Your task to perform on an android device: Open calendar and show me the fourth week of next month Image 0: 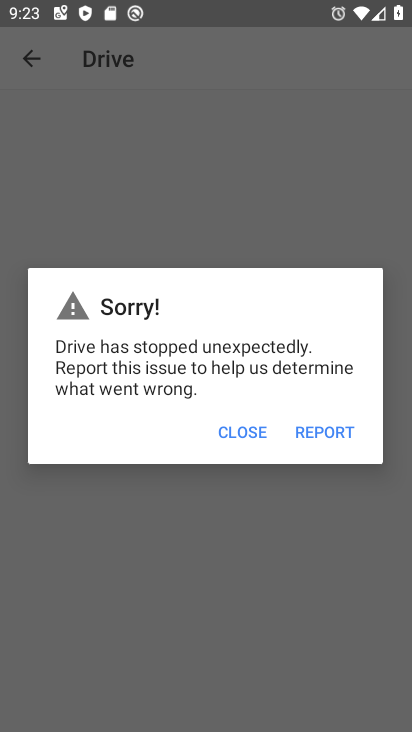
Step 0: press home button
Your task to perform on an android device: Open calendar and show me the fourth week of next month Image 1: 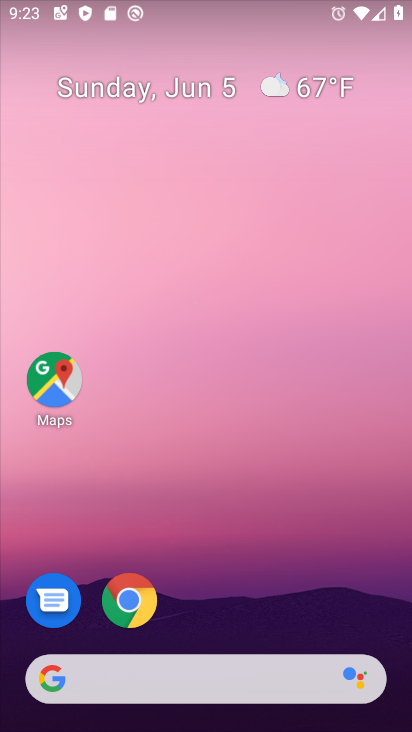
Step 1: drag from (402, 469) to (234, 14)
Your task to perform on an android device: Open calendar and show me the fourth week of next month Image 2: 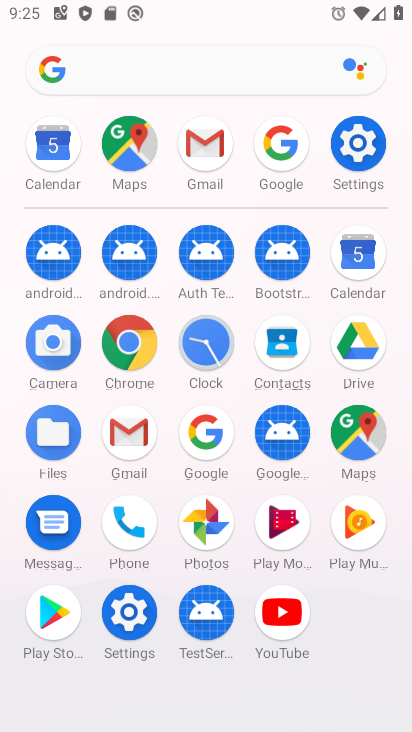
Step 2: click (342, 259)
Your task to perform on an android device: Open calendar and show me the fourth week of next month Image 3: 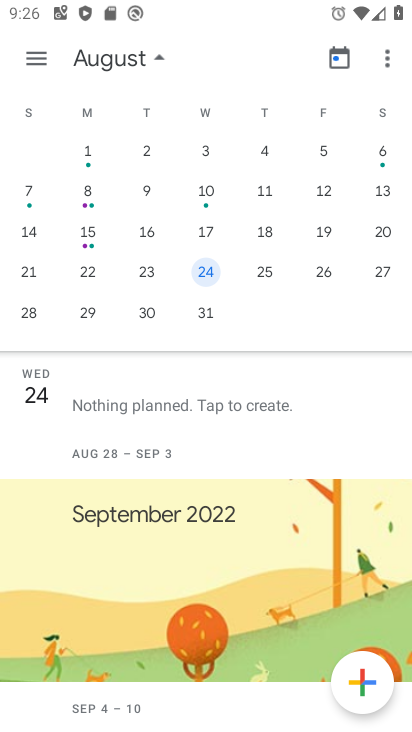
Step 3: drag from (359, 213) to (1, 279)
Your task to perform on an android device: Open calendar and show me the fourth week of next month Image 4: 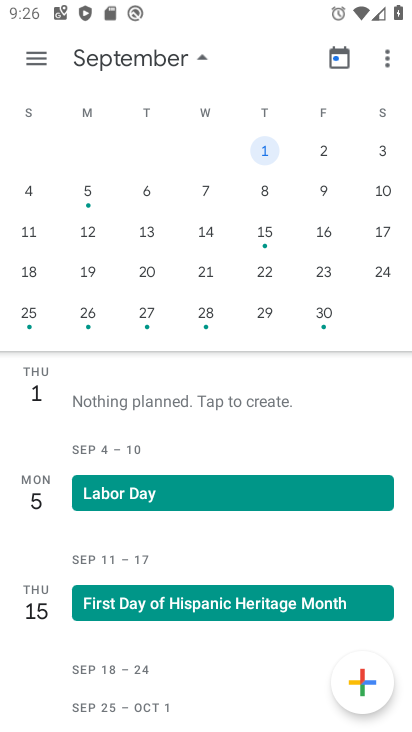
Step 4: click (205, 330)
Your task to perform on an android device: Open calendar and show me the fourth week of next month Image 5: 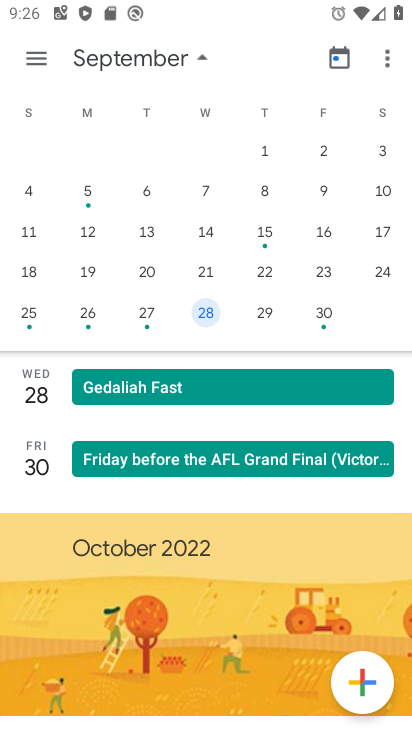
Step 5: task complete